Your task to perform on an android device: Open settings on Google Maps Image 0: 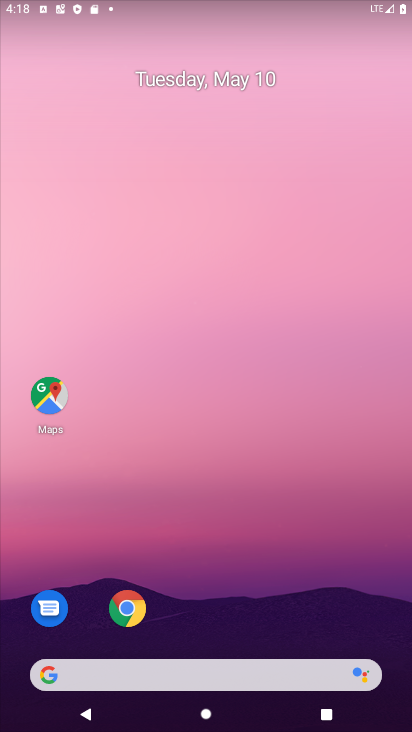
Step 0: click (51, 396)
Your task to perform on an android device: Open settings on Google Maps Image 1: 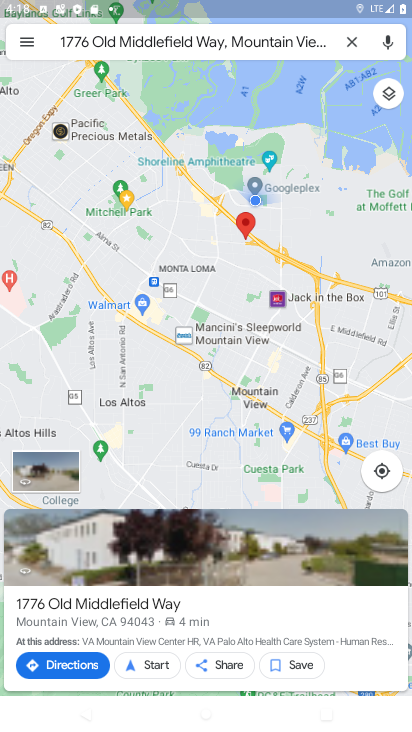
Step 1: click (24, 31)
Your task to perform on an android device: Open settings on Google Maps Image 2: 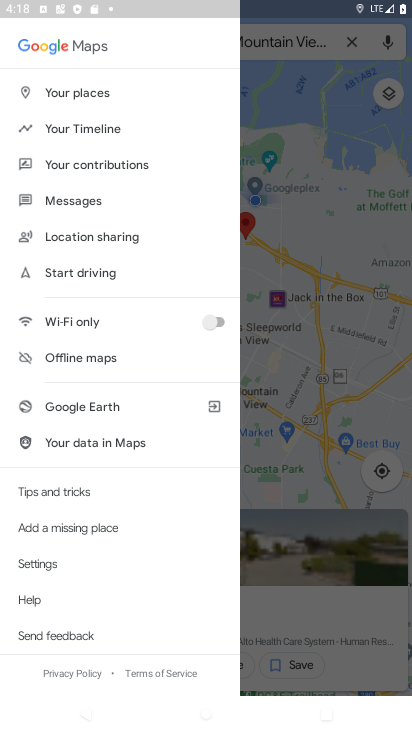
Step 2: click (40, 557)
Your task to perform on an android device: Open settings on Google Maps Image 3: 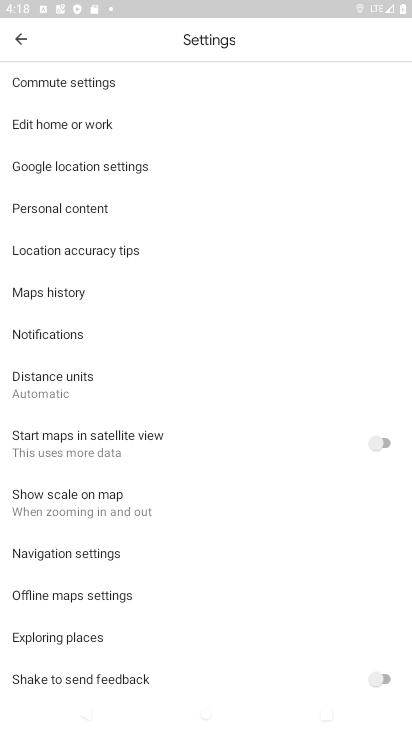
Step 3: task complete